Your task to perform on an android device: allow notifications from all sites in the chrome app Image 0: 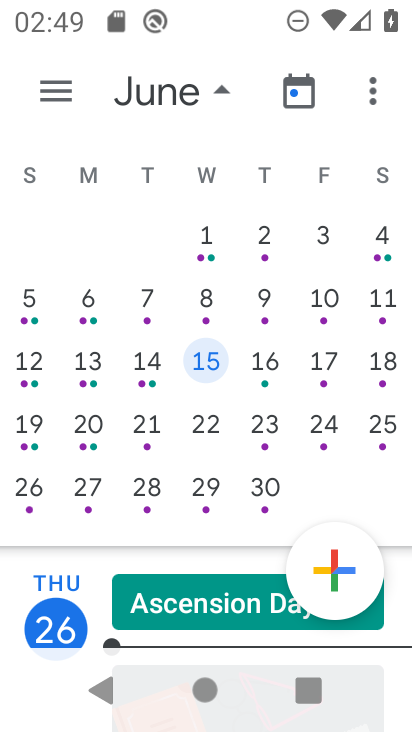
Step 0: press home button
Your task to perform on an android device: allow notifications from all sites in the chrome app Image 1: 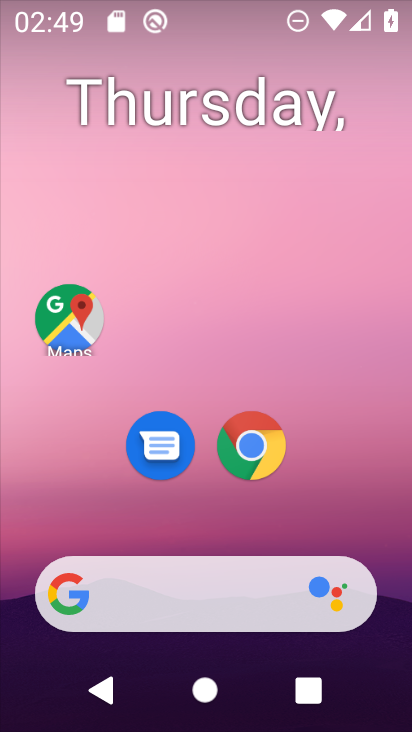
Step 1: drag from (36, 571) to (284, 187)
Your task to perform on an android device: allow notifications from all sites in the chrome app Image 2: 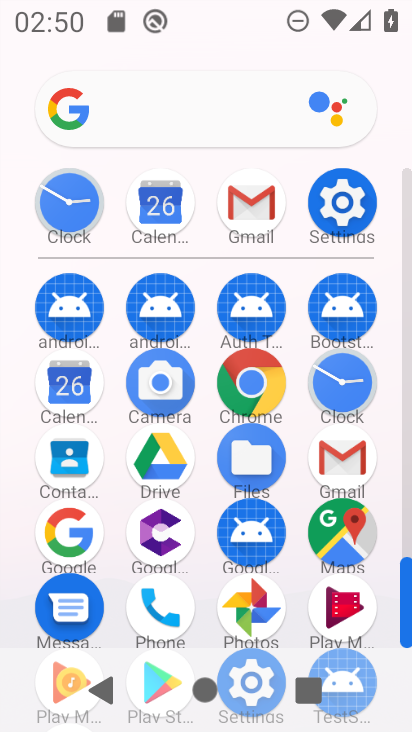
Step 2: click (245, 381)
Your task to perform on an android device: allow notifications from all sites in the chrome app Image 3: 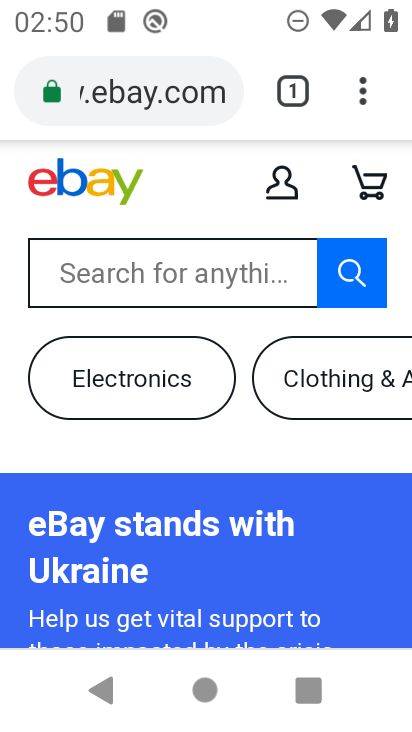
Step 3: click (350, 98)
Your task to perform on an android device: allow notifications from all sites in the chrome app Image 4: 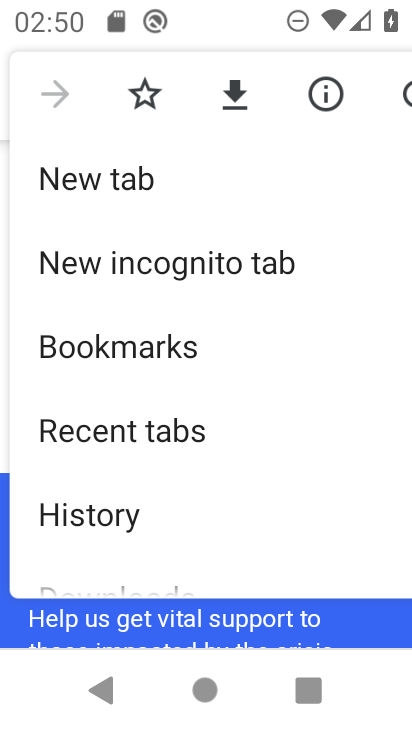
Step 4: drag from (112, 509) to (240, 210)
Your task to perform on an android device: allow notifications from all sites in the chrome app Image 5: 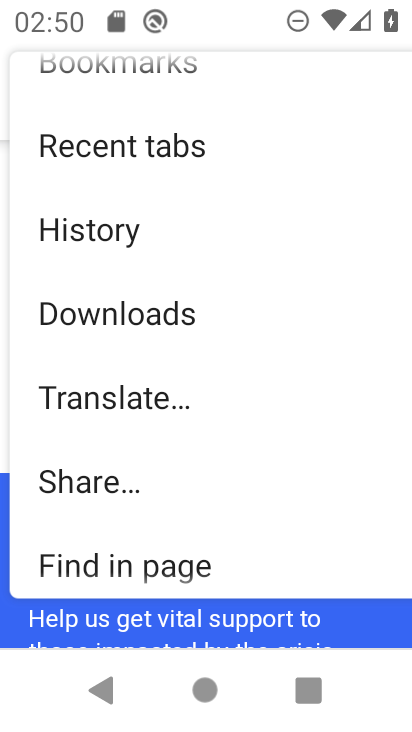
Step 5: drag from (83, 543) to (205, 266)
Your task to perform on an android device: allow notifications from all sites in the chrome app Image 6: 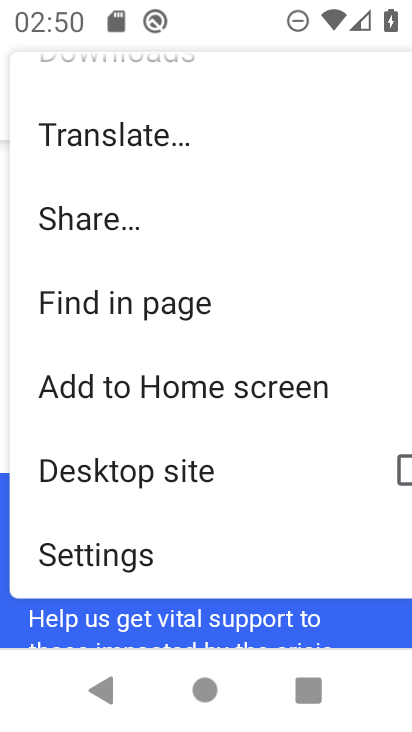
Step 6: click (105, 547)
Your task to perform on an android device: allow notifications from all sites in the chrome app Image 7: 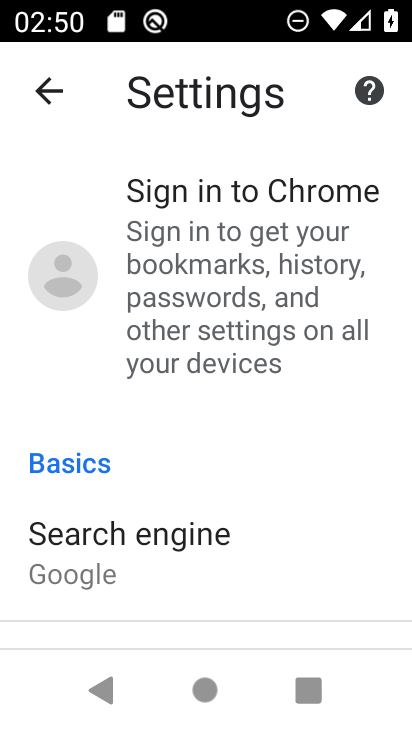
Step 7: drag from (6, 586) to (283, 117)
Your task to perform on an android device: allow notifications from all sites in the chrome app Image 8: 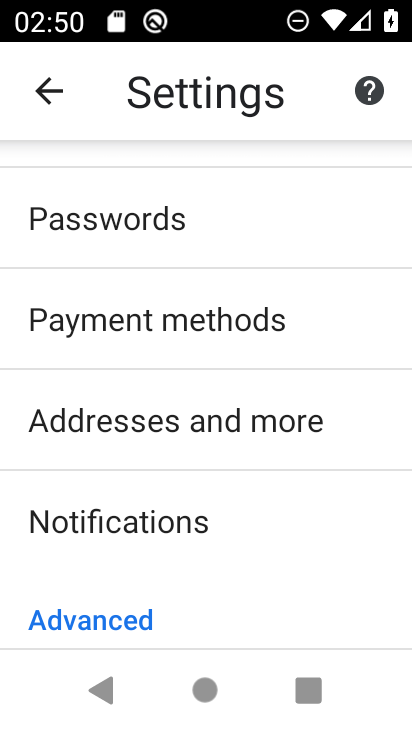
Step 8: drag from (26, 554) to (153, 364)
Your task to perform on an android device: allow notifications from all sites in the chrome app Image 9: 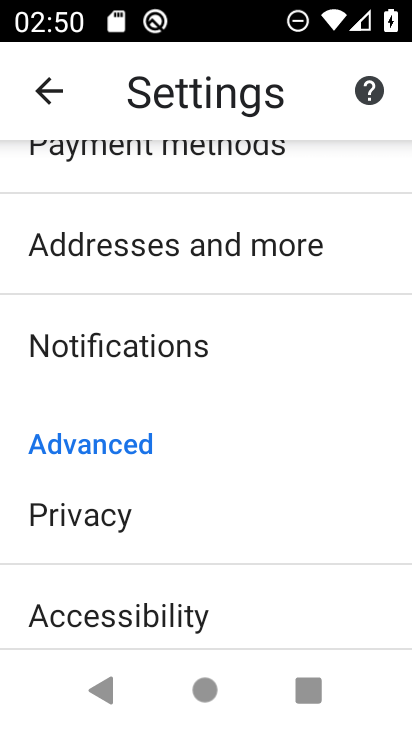
Step 9: drag from (15, 481) to (151, 291)
Your task to perform on an android device: allow notifications from all sites in the chrome app Image 10: 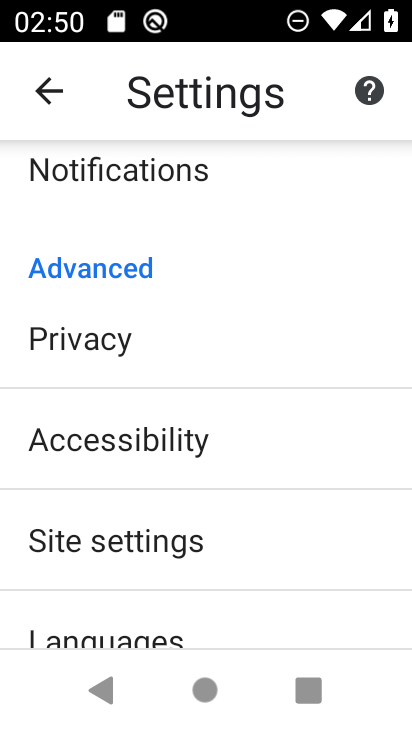
Step 10: click (93, 534)
Your task to perform on an android device: allow notifications from all sites in the chrome app Image 11: 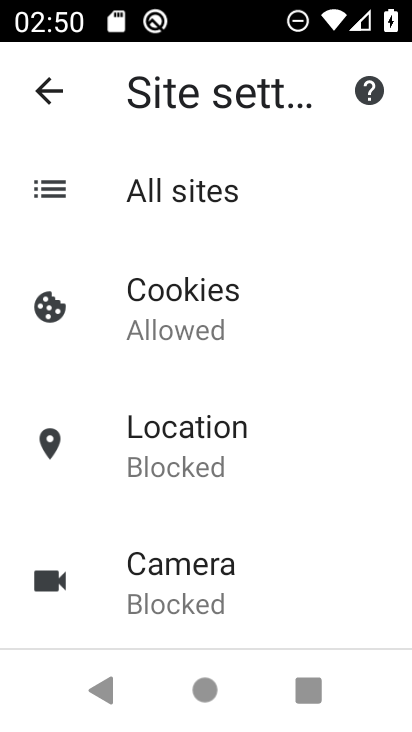
Step 11: drag from (15, 568) to (254, 238)
Your task to perform on an android device: allow notifications from all sites in the chrome app Image 12: 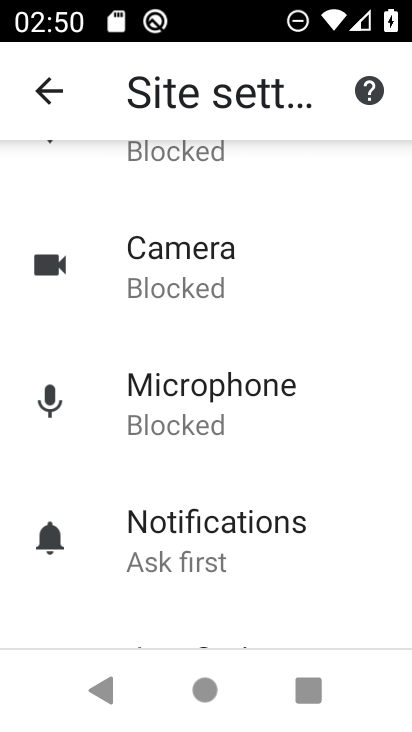
Step 12: click (137, 514)
Your task to perform on an android device: allow notifications from all sites in the chrome app Image 13: 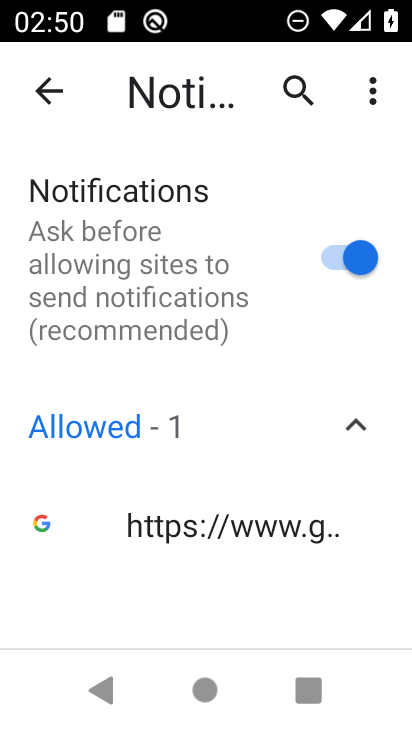
Step 13: click (269, 526)
Your task to perform on an android device: allow notifications from all sites in the chrome app Image 14: 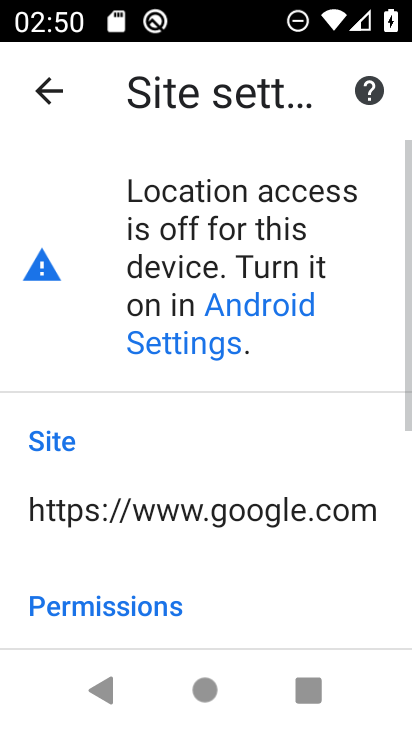
Step 14: drag from (234, 440) to (301, 228)
Your task to perform on an android device: allow notifications from all sites in the chrome app Image 15: 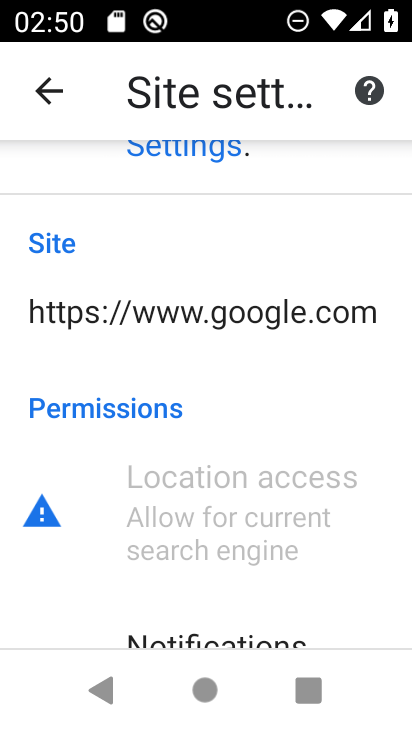
Step 15: click (145, 538)
Your task to perform on an android device: allow notifications from all sites in the chrome app Image 16: 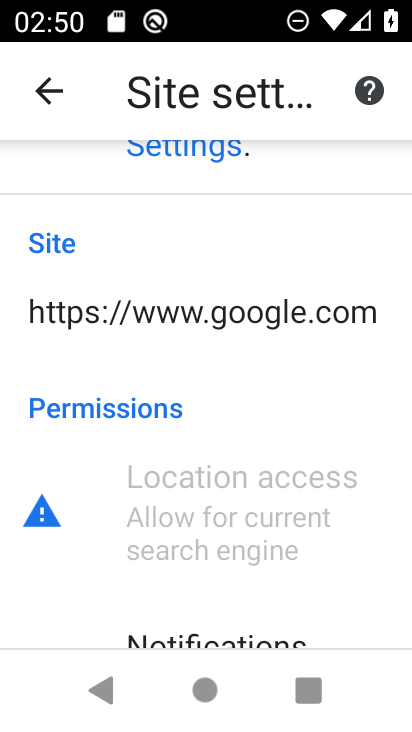
Step 16: drag from (34, 588) to (209, 286)
Your task to perform on an android device: allow notifications from all sites in the chrome app Image 17: 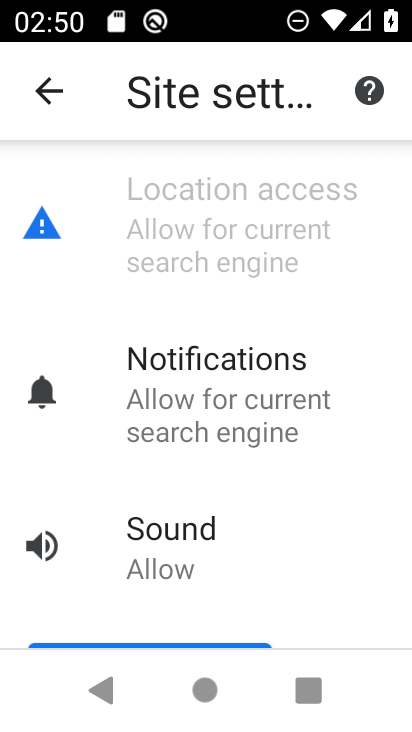
Step 17: click (237, 434)
Your task to perform on an android device: allow notifications from all sites in the chrome app Image 18: 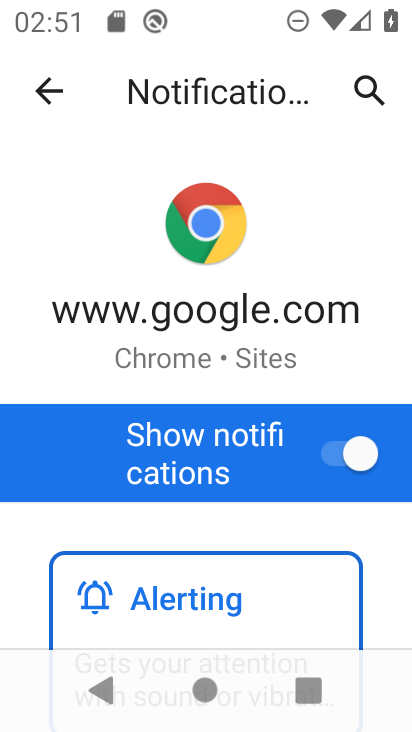
Step 18: task complete